Your task to perform on an android device: What's the weather? Image 0: 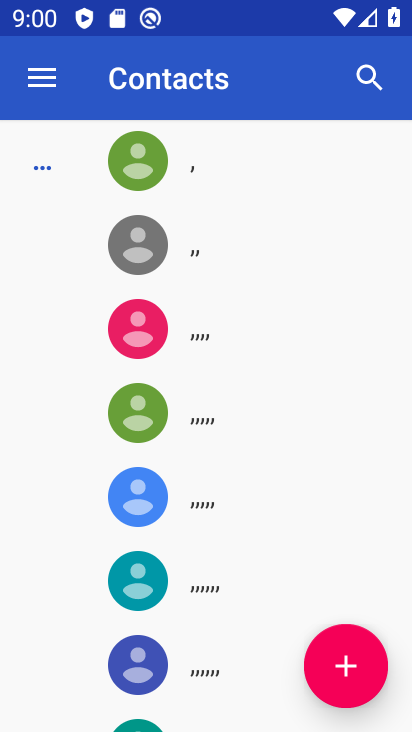
Step 0: press home button
Your task to perform on an android device: What's the weather? Image 1: 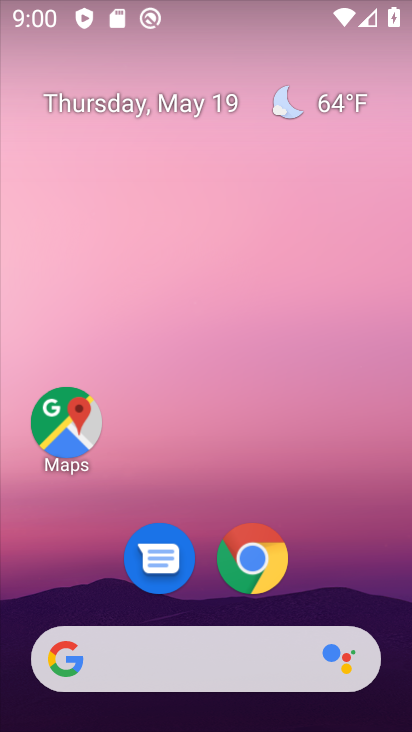
Step 1: click (280, 94)
Your task to perform on an android device: What's the weather? Image 2: 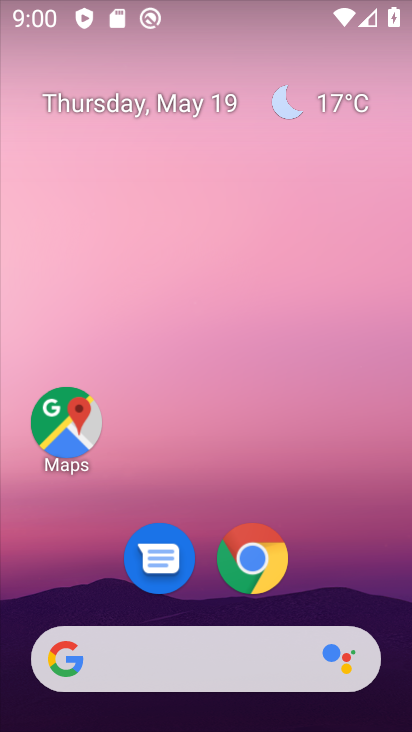
Step 2: click (280, 102)
Your task to perform on an android device: What's the weather? Image 3: 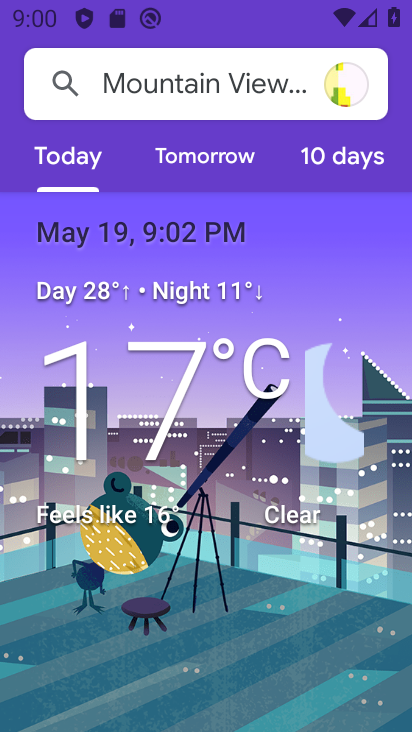
Step 3: task complete